Your task to perform on an android device: turn off sleep mode Image 0: 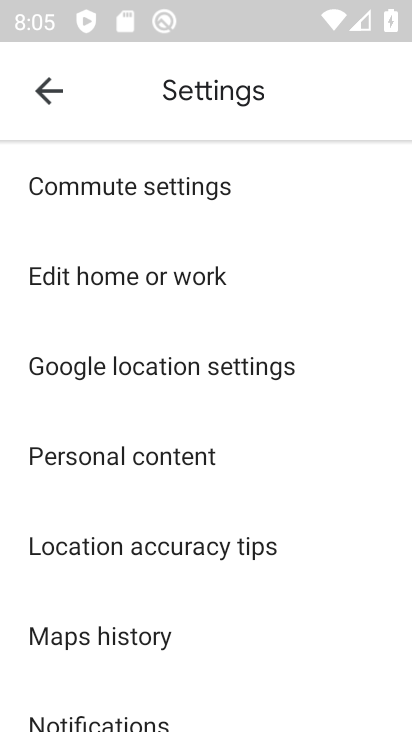
Step 0: drag from (213, 44) to (254, 521)
Your task to perform on an android device: turn off sleep mode Image 1: 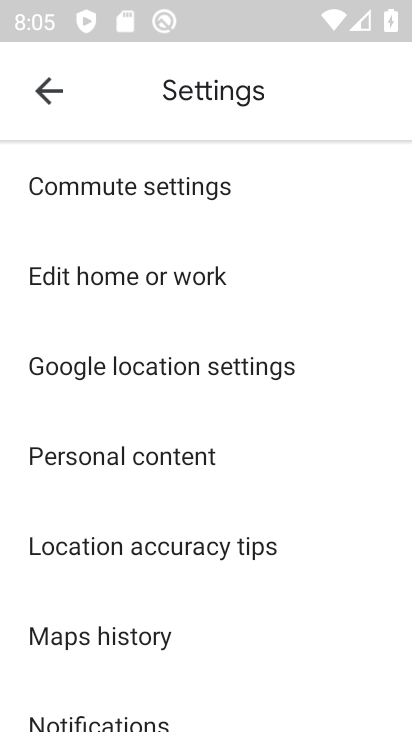
Step 1: drag from (261, 17) to (230, 526)
Your task to perform on an android device: turn off sleep mode Image 2: 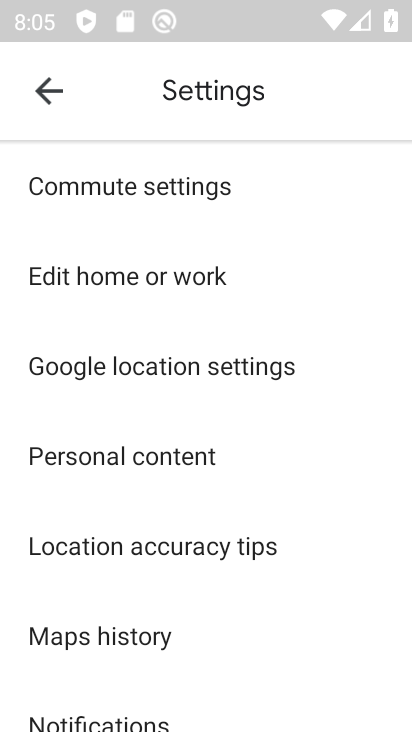
Step 2: drag from (286, 3) to (328, 428)
Your task to perform on an android device: turn off sleep mode Image 3: 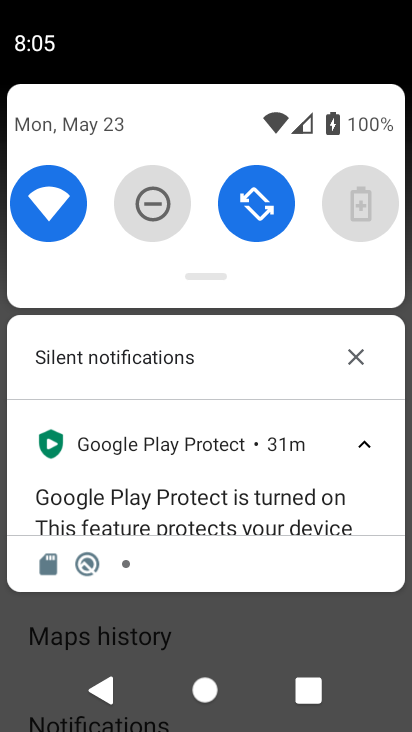
Step 3: drag from (203, 155) to (239, 721)
Your task to perform on an android device: turn off sleep mode Image 4: 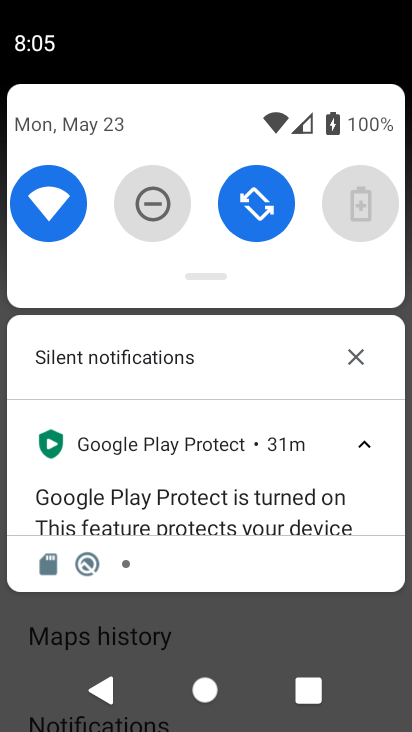
Step 4: drag from (210, 132) to (176, 730)
Your task to perform on an android device: turn off sleep mode Image 5: 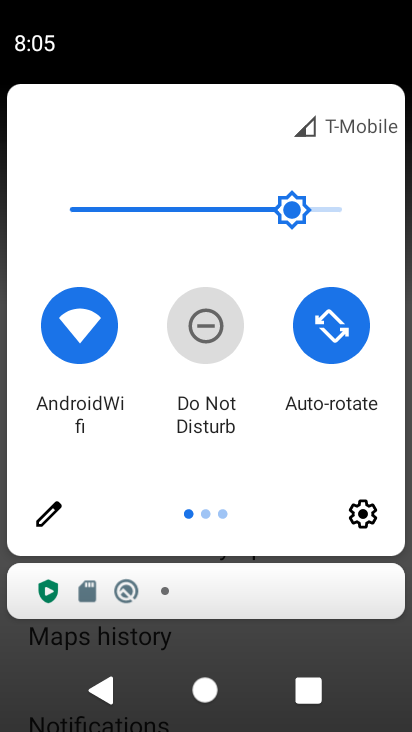
Step 5: click (355, 512)
Your task to perform on an android device: turn off sleep mode Image 6: 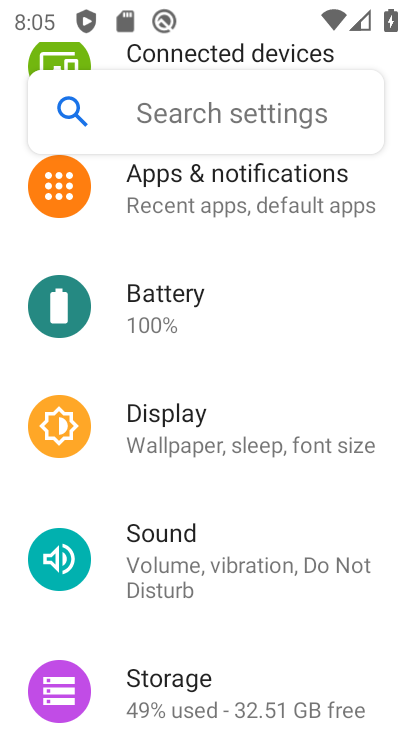
Step 6: task complete